Your task to perform on an android device: toggle wifi Image 0: 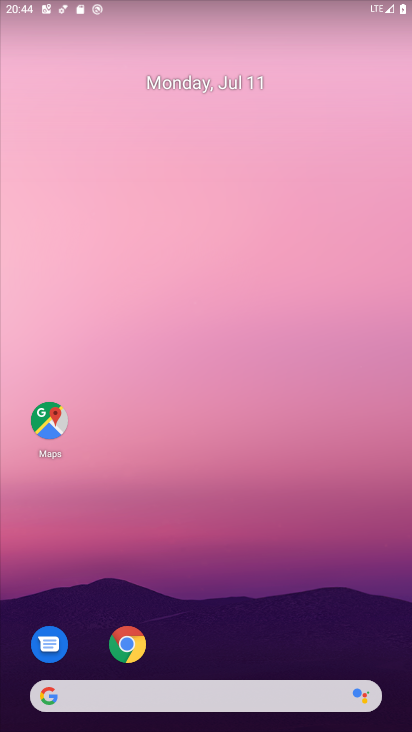
Step 0: drag from (232, 579) to (217, 53)
Your task to perform on an android device: toggle wifi Image 1: 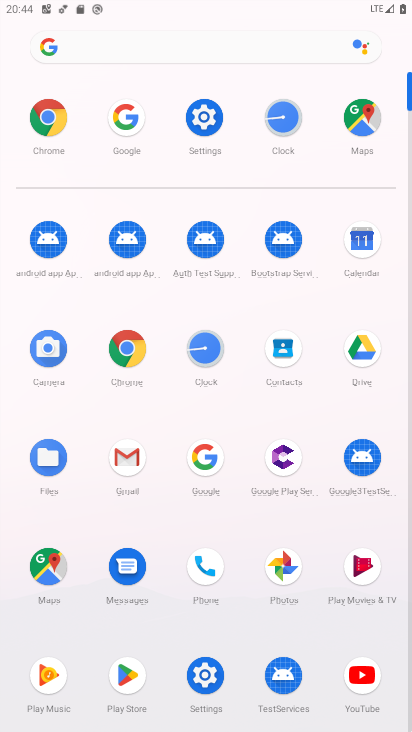
Step 1: click (201, 112)
Your task to perform on an android device: toggle wifi Image 2: 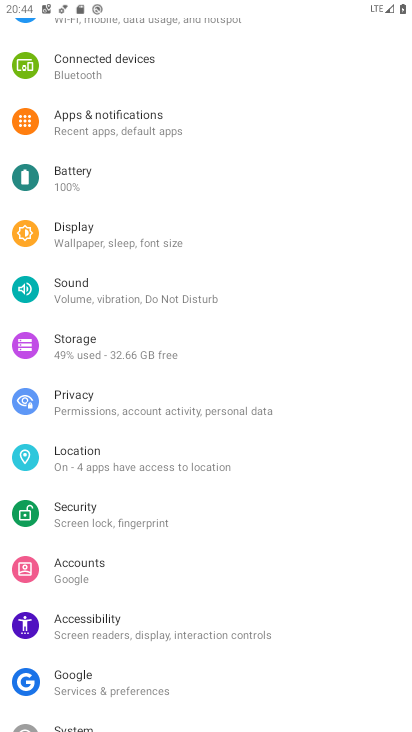
Step 2: drag from (173, 85) to (173, 691)
Your task to perform on an android device: toggle wifi Image 3: 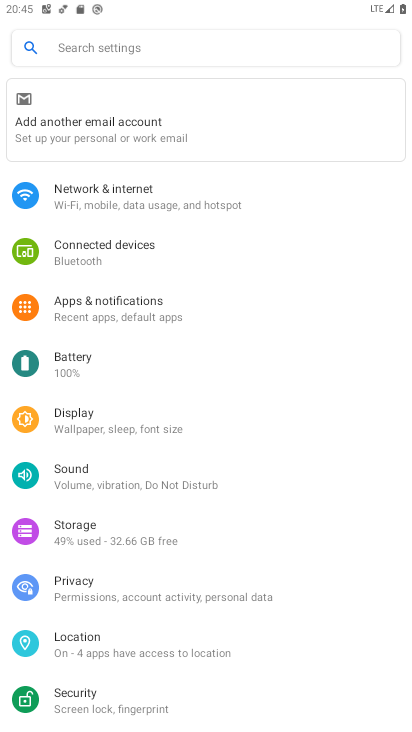
Step 3: click (157, 200)
Your task to perform on an android device: toggle wifi Image 4: 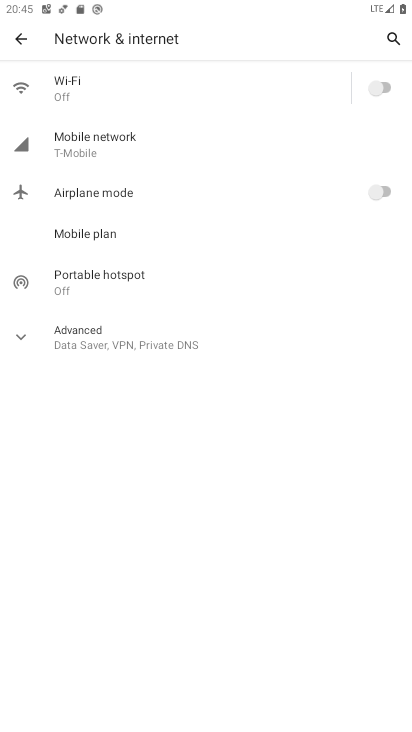
Step 4: click (387, 84)
Your task to perform on an android device: toggle wifi Image 5: 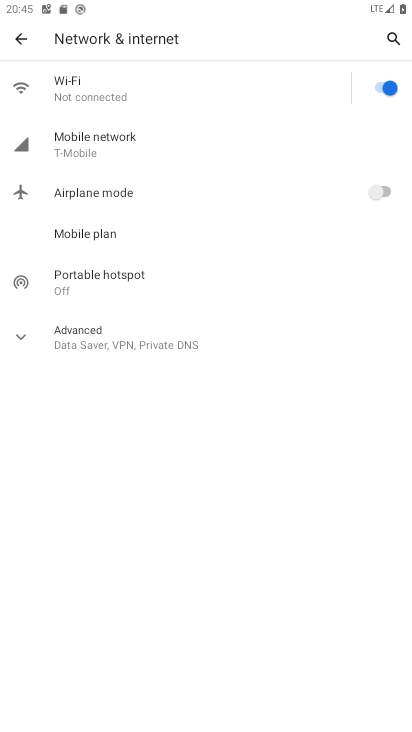
Step 5: task complete